Your task to perform on an android device: Open notification settings Image 0: 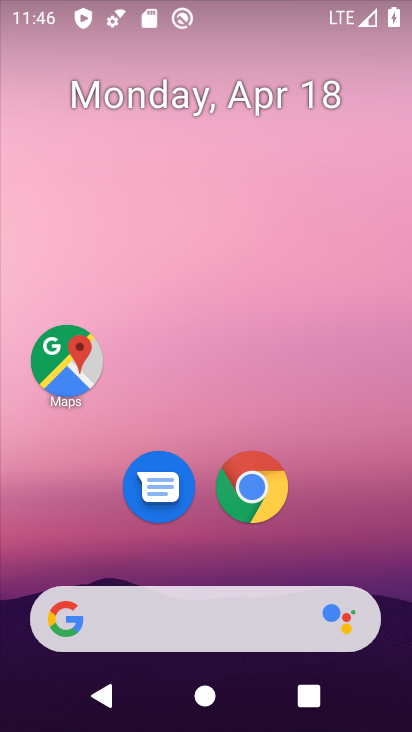
Step 0: drag from (210, 550) to (173, 154)
Your task to perform on an android device: Open notification settings Image 1: 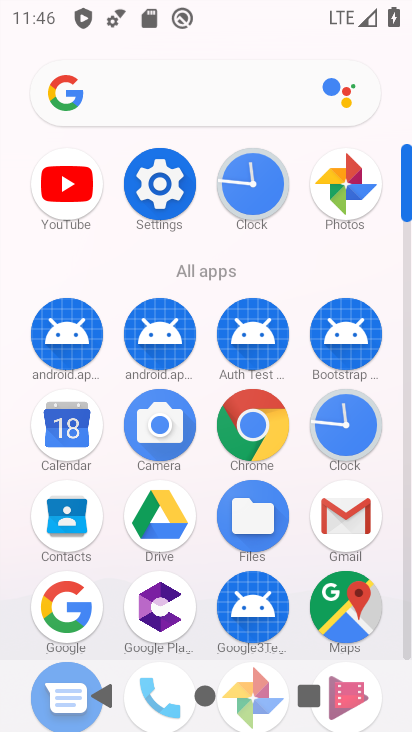
Step 1: click (154, 187)
Your task to perform on an android device: Open notification settings Image 2: 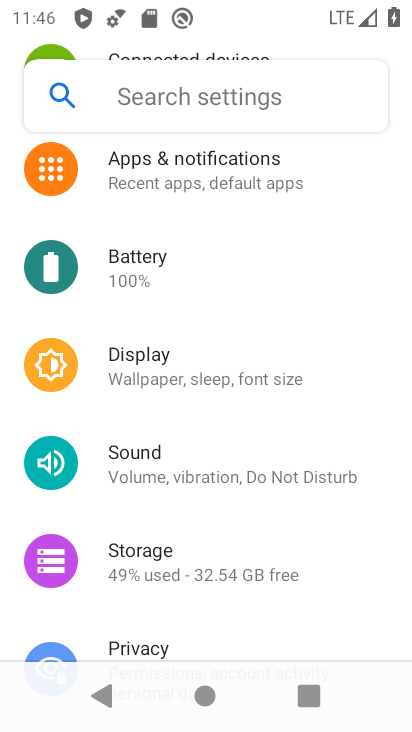
Step 2: click (183, 159)
Your task to perform on an android device: Open notification settings Image 3: 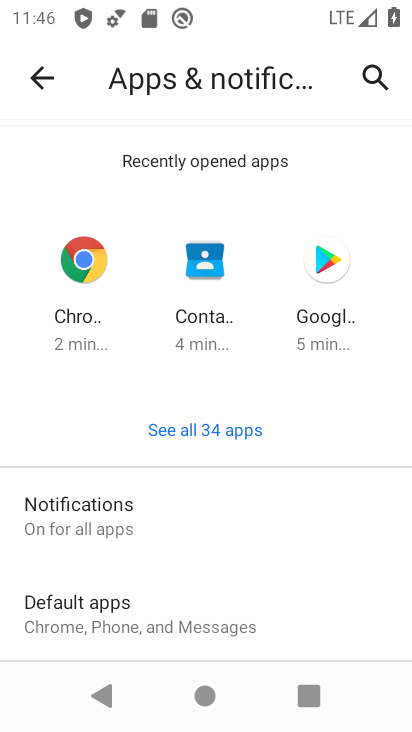
Step 3: drag from (214, 554) to (165, 245)
Your task to perform on an android device: Open notification settings Image 4: 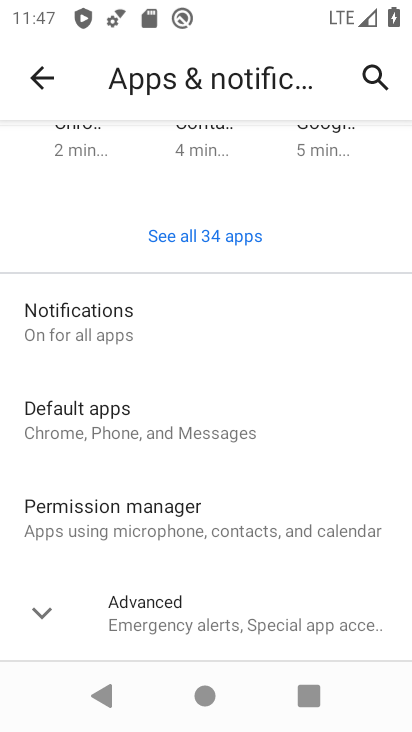
Step 4: click (74, 315)
Your task to perform on an android device: Open notification settings Image 5: 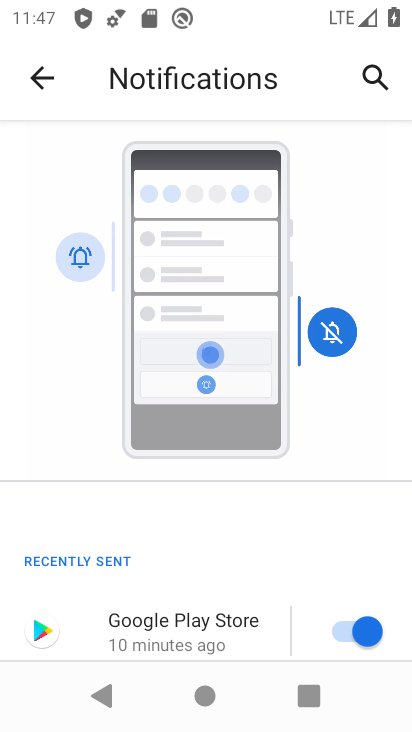
Step 5: task complete